Your task to perform on an android device: see creations saved in the google photos Image 0: 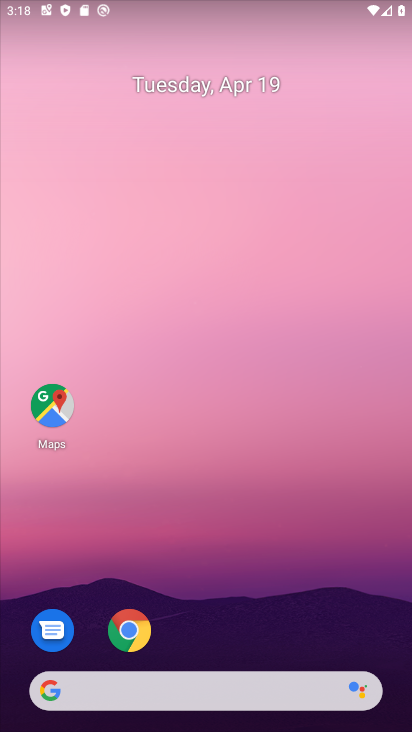
Step 0: drag from (312, 371) to (295, 99)
Your task to perform on an android device: see creations saved in the google photos Image 1: 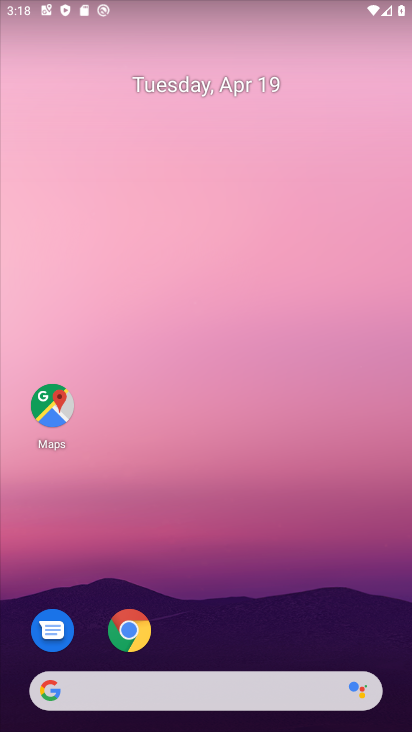
Step 1: drag from (327, 477) to (3, 668)
Your task to perform on an android device: see creations saved in the google photos Image 2: 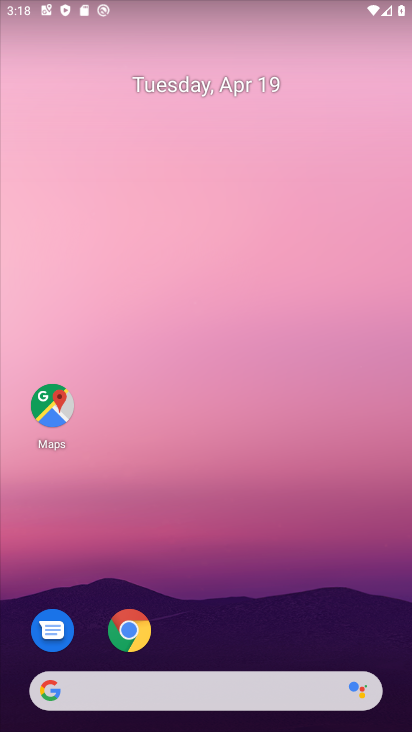
Step 2: drag from (360, 538) to (299, 2)
Your task to perform on an android device: see creations saved in the google photos Image 3: 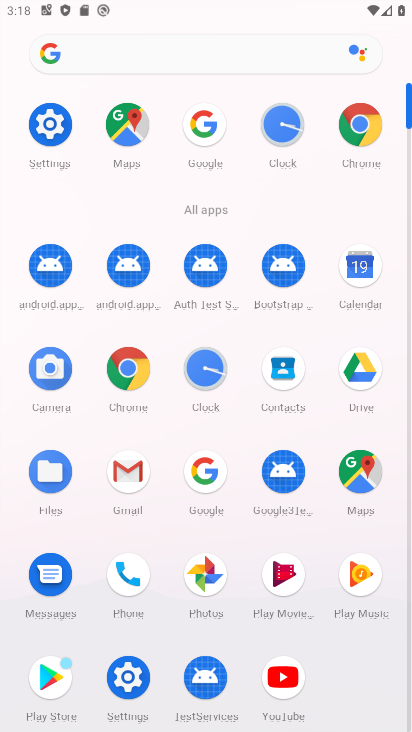
Step 3: click (210, 577)
Your task to perform on an android device: see creations saved in the google photos Image 4: 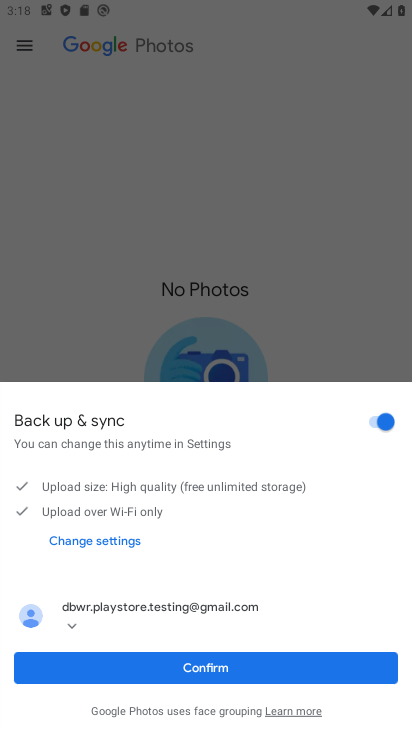
Step 4: click (217, 671)
Your task to perform on an android device: see creations saved in the google photos Image 5: 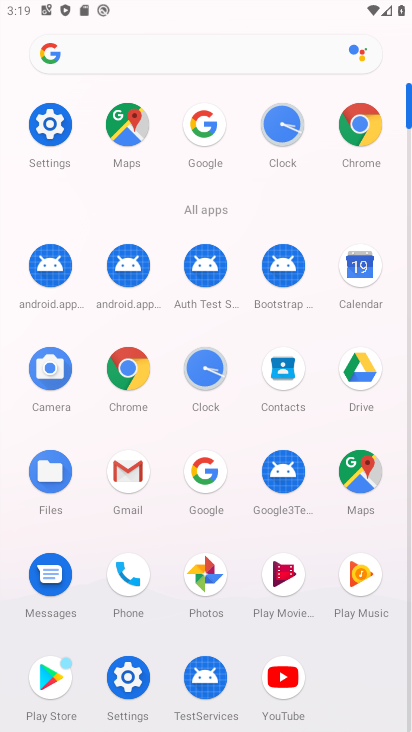
Step 5: click (204, 579)
Your task to perform on an android device: see creations saved in the google photos Image 6: 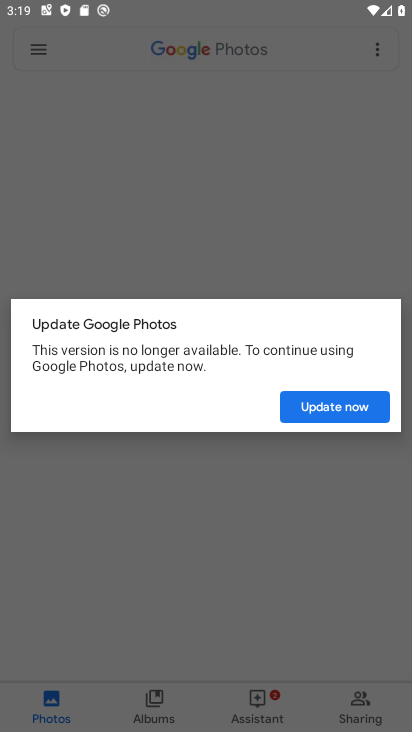
Step 6: click (343, 413)
Your task to perform on an android device: see creations saved in the google photos Image 7: 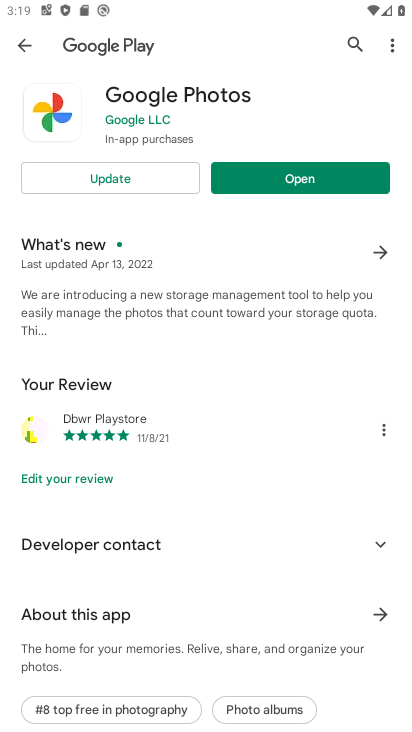
Step 7: click (300, 191)
Your task to perform on an android device: see creations saved in the google photos Image 8: 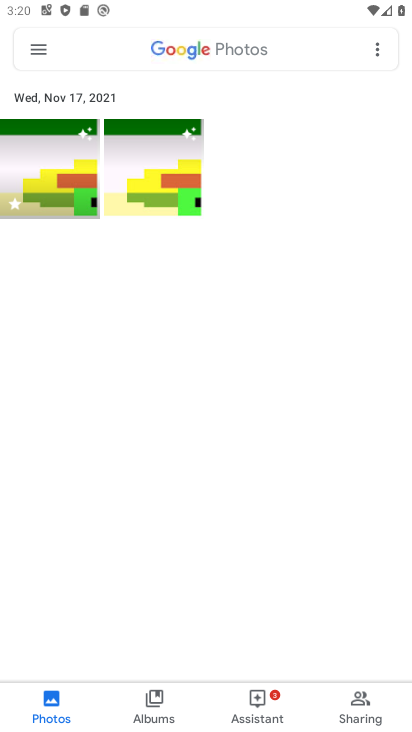
Step 8: click (160, 698)
Your task to perform on an android device: see creations saved in the google photos Image 9: 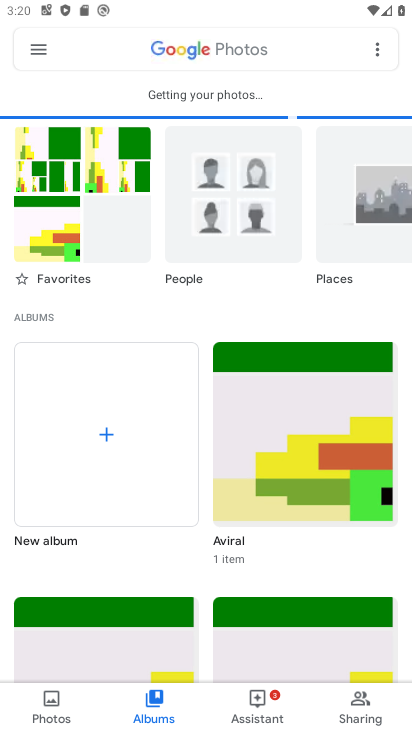
Step 9: task complete